Your task to perform on an android device: Go to Yahoo.com Image 0: 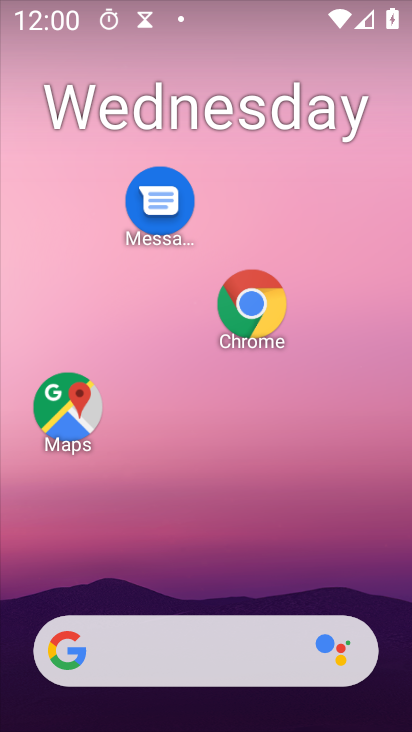
Step 0: drag from (241, 661) to (328, 217)
Your task to perform on an android device: Go to Yahoo.com Image 1: 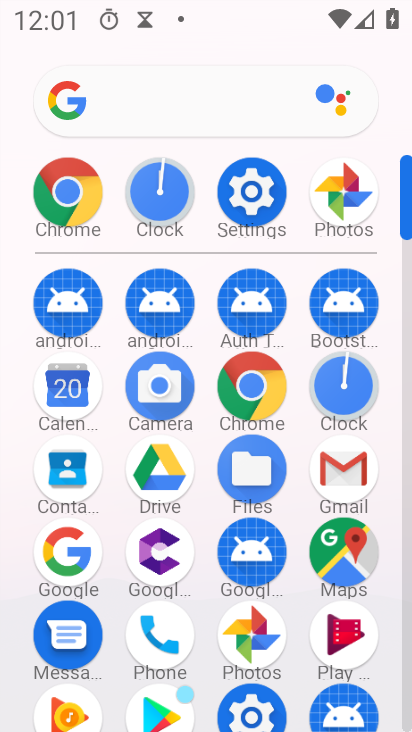
Step 1: click (259, 367)
Your task to perform on an android device: Go to Yahoo.com Image 2: 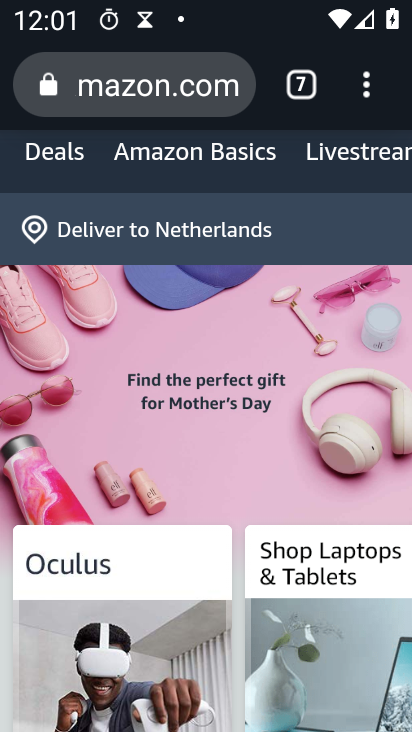
Step 2: click (365, 88)
Your task to perform on an android device: Go to Yahoo.com Image 3: 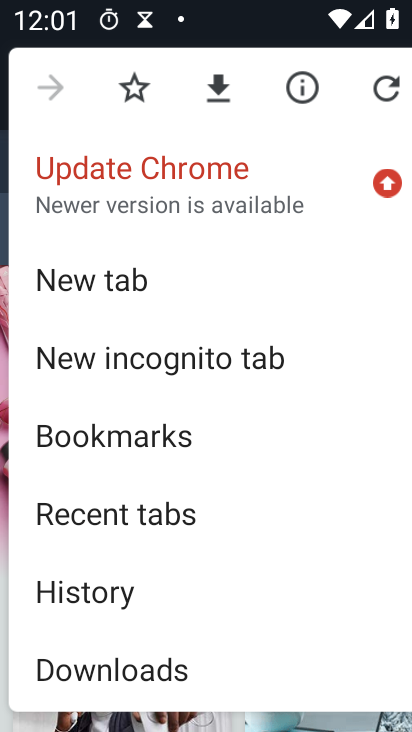
Step 3: click (153, 283)
Your task to perform on an android device: Go to Yahoo.com Image 4: 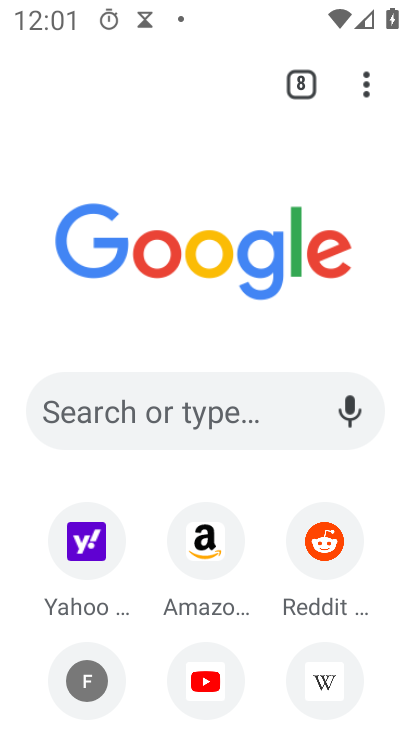
Step 4: click (102, 531)
Your task to perform on an android device: Go to Yahoo.com Image 5: 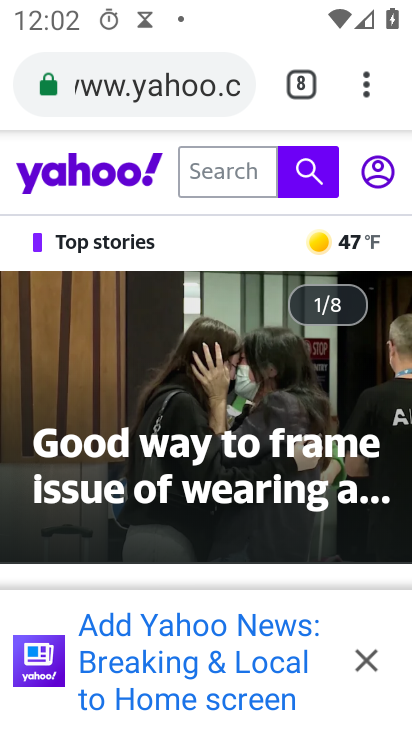
Step 5: task complete